Your task to perform on an android device: check battery use Image 0: 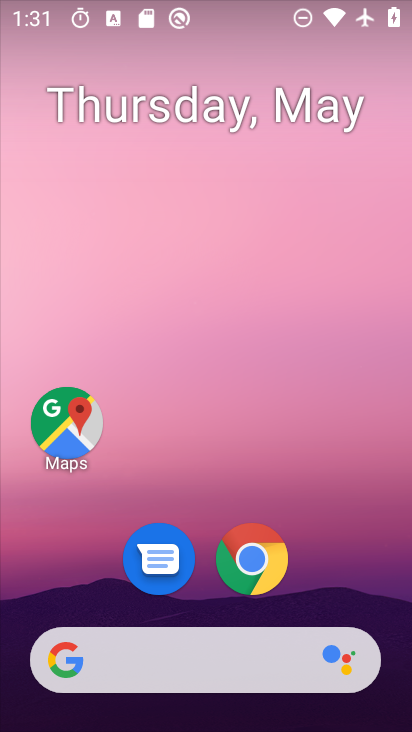
Step 0: drag from (189, 626) to (209, 166)
Your task to perform on an android device: check battery use Image 1: 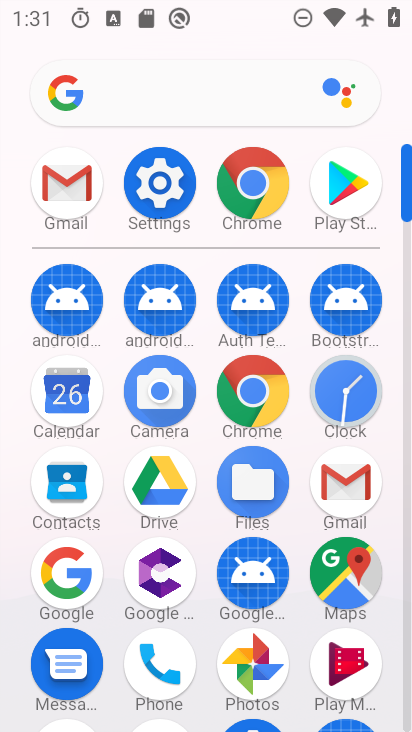
Step 1: click (160, 201)
Your task to perform on an android device: check battery use Image 2: 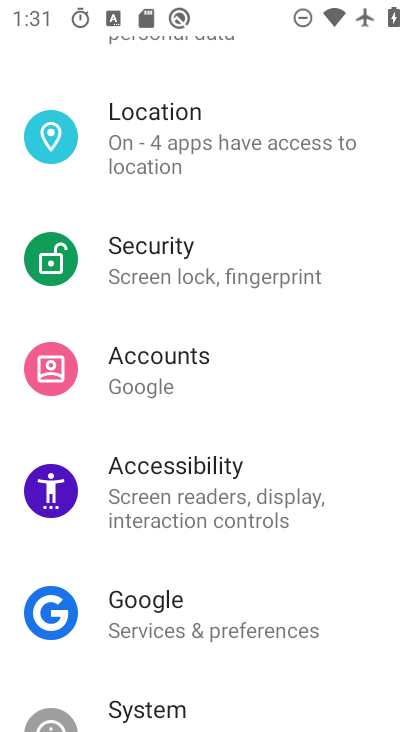
Step 2: drag from (212, 502) to (162, 584)
Your task to perform on an android device: check battery use Image 3: 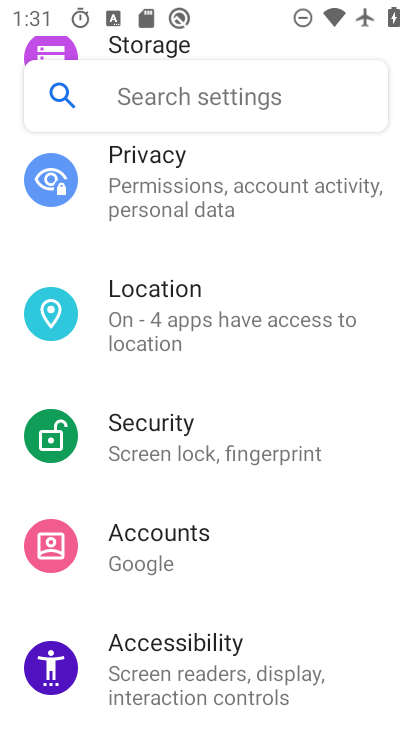
Step 3: drag from (206, 314) to (173, 595)
Your task to perform on an android device: check battery use Image 4: 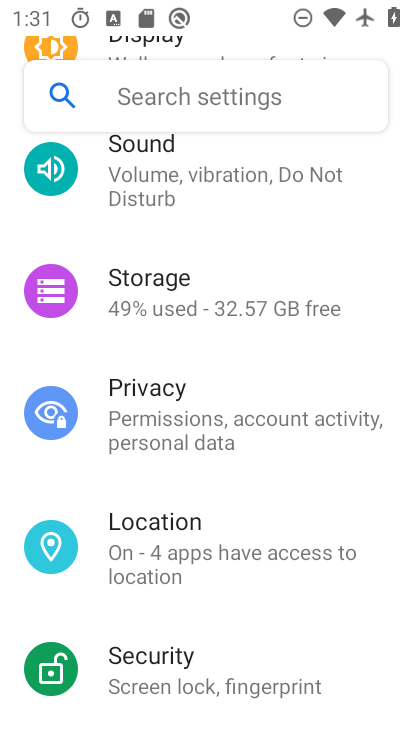
Step 4: drag from (179, 342) to (134, 556)
Your task to perform on an android device: check battery use Image 5: 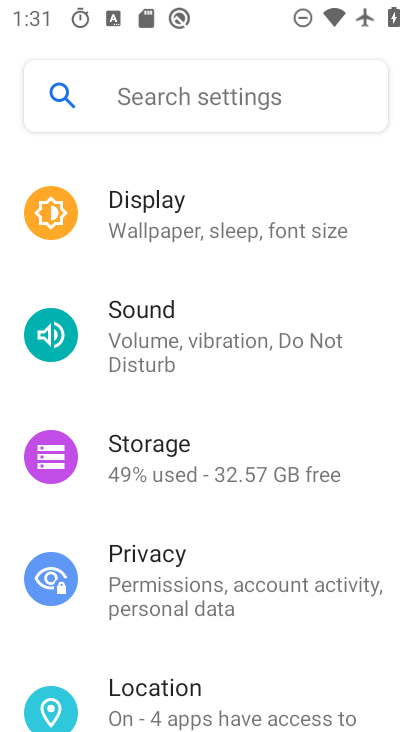
Step 5: drag from (206, 371) to (180, 563)
Your task to perform on an android device: check battery use Image 6: 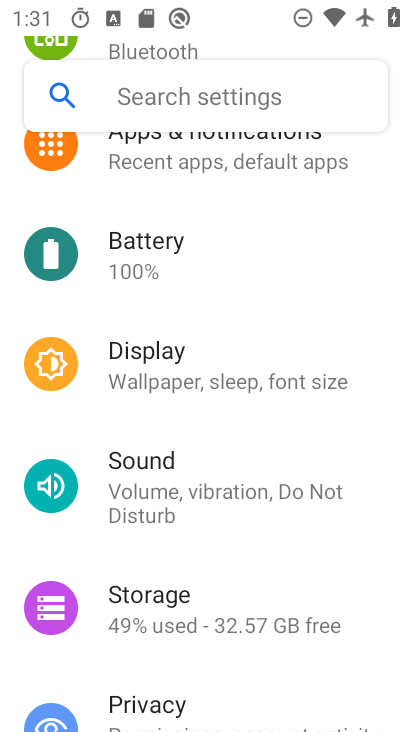
Step 6: click (194, 270)
Your task to perform on an android device: check battery use Image 7: 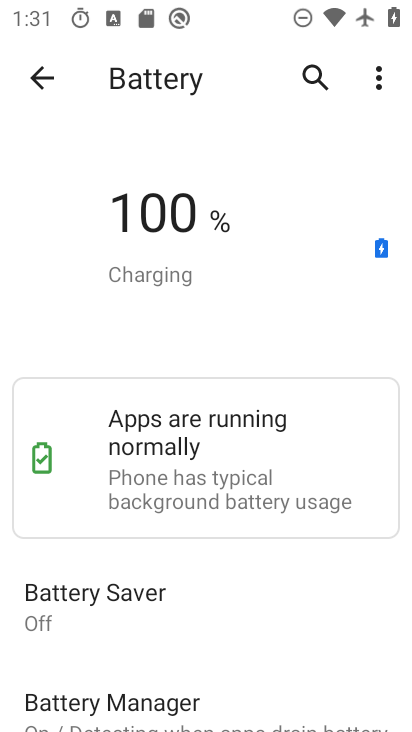
Step 7: task complete